Your task to perform on an android device: What is the news today? Image 0: 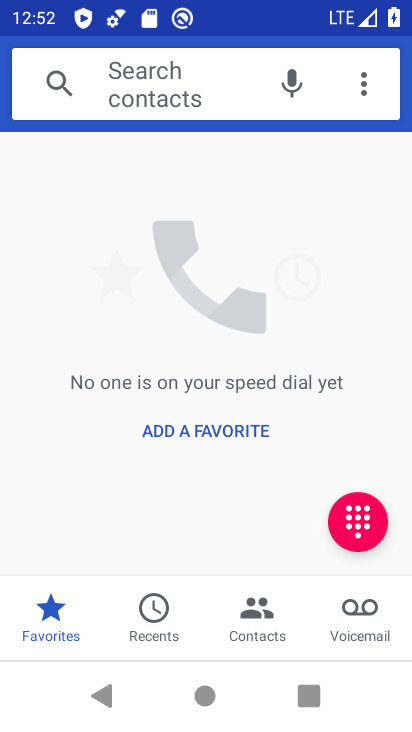
Step 0: press home button
Your task to perform on an android device: What is the news today? Image 1: 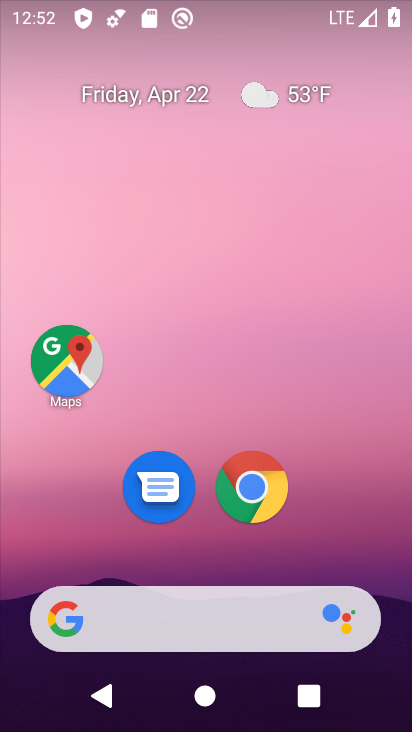
Step 1: click (227, 631)
Your task to perform on an android device: What is the news today? Image 2: 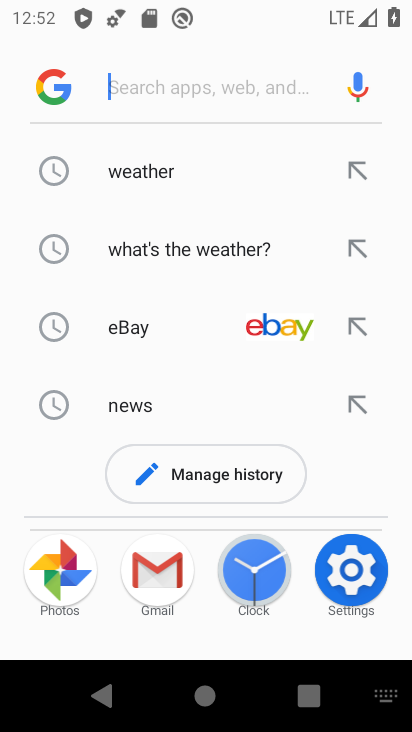
Step 2: click (38, 83)
Your task to perform on an android device: What is the news today? Image 3: 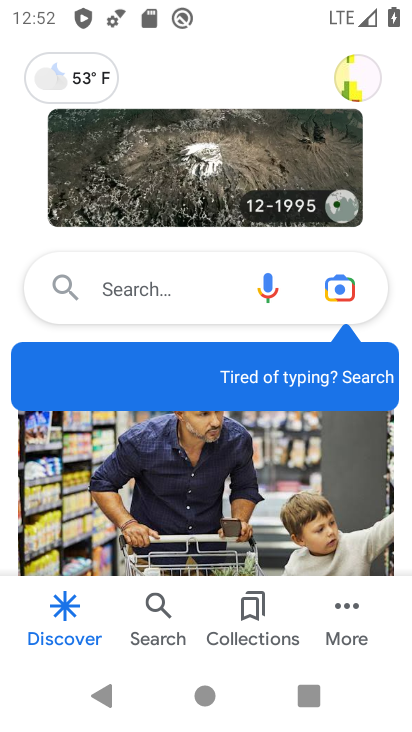
Step 3: task complete